Your task to perform on an android device: Clear all items from cart on newegg. Search for "apple airpods" on newegg, select the first entry, and add it to the cart. Image 0: 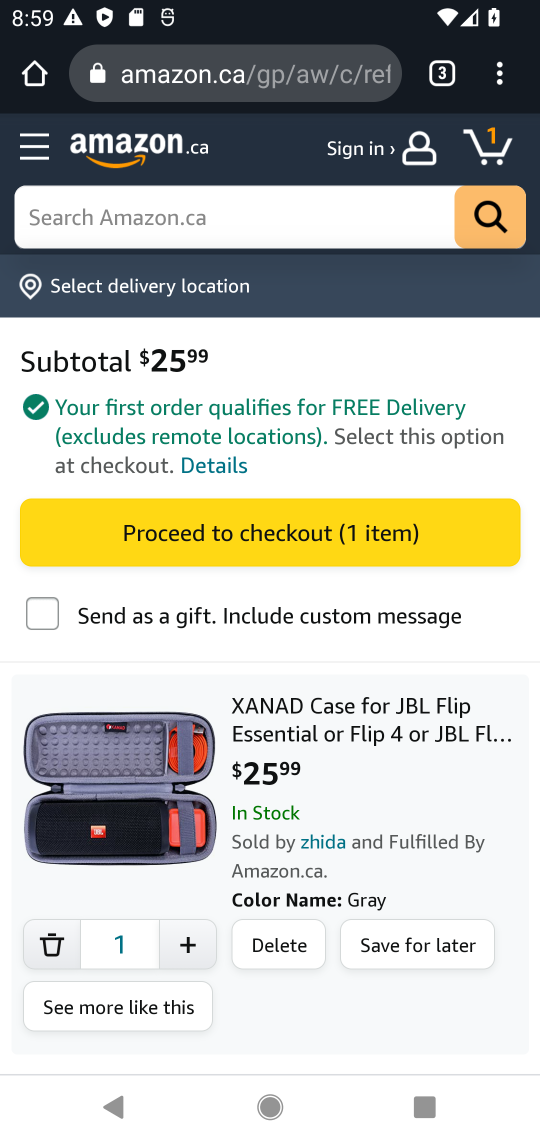
Step 0: press home button
Your task to perform on an android device: Clear all items from cart on newegg. Search for "apple airpods" on newegg, select the first entry, and add it to the cart. Image 1: 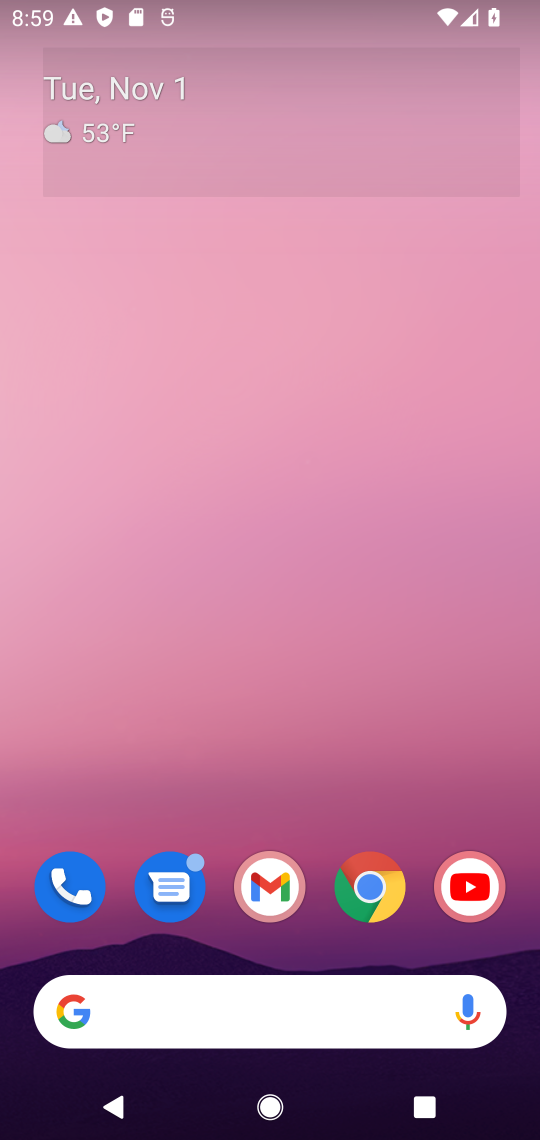
Step 1: drag from (319, 908) to (360, 271)
Your task to perform on an android device: Clear all items from cart on newegg. Search for "apple airpods" on newegg, select the first entry, and add it to the cart. Image 2: 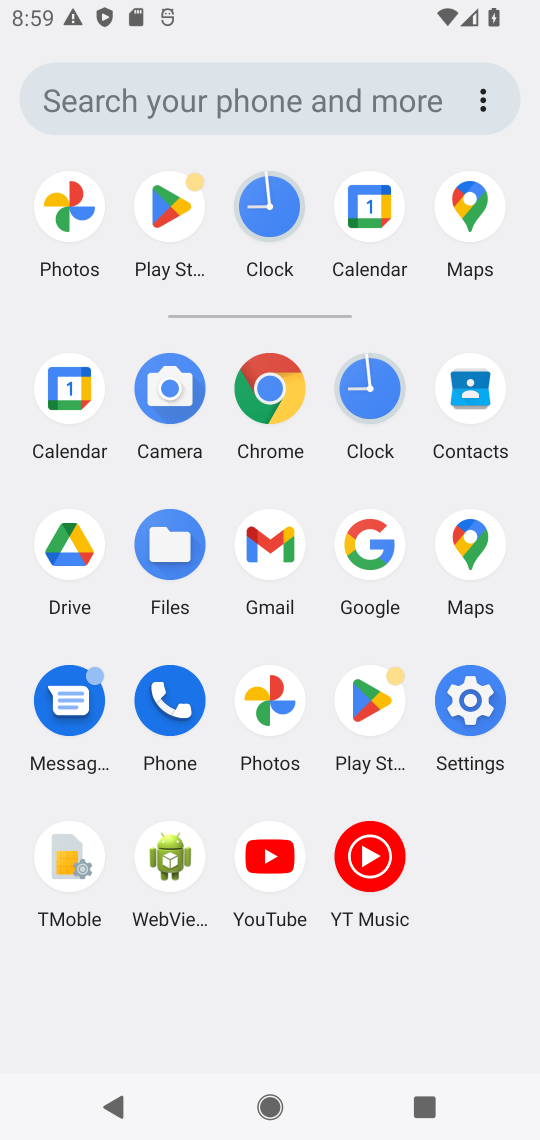
Step 2: click (372, 539)
Your task to perform on an android device: Clear all items from cart on newegg. Search for "apple airpods" on newegg, select the first entry, and add it to the cart. Image 3: 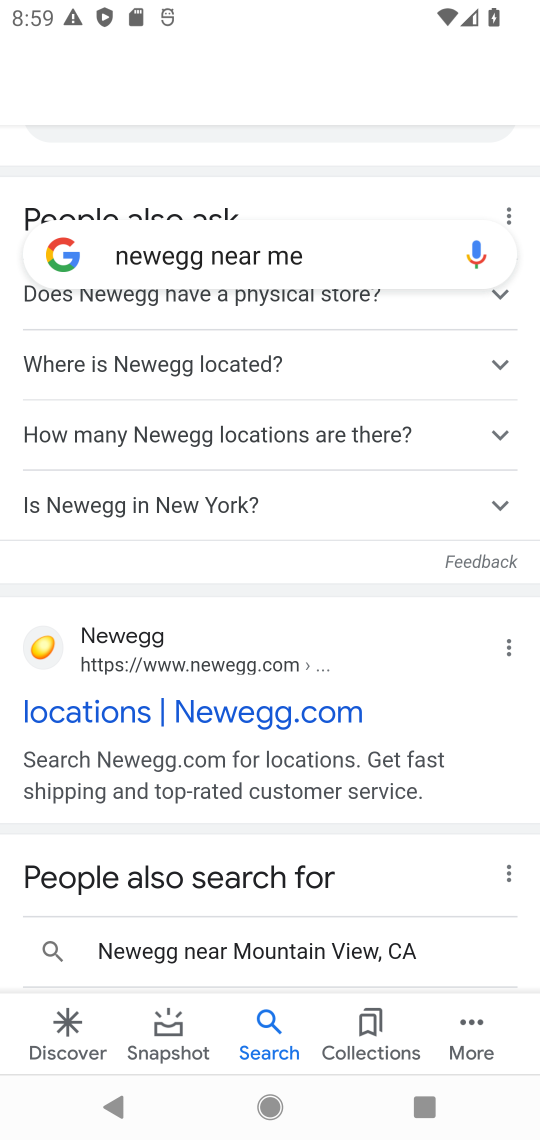
Step 3: click (288, 261)
Your task to perform on an android device: Clear all items from cart on newegg. Search for "apple airpods" on newegg, select the first entry, and add it to the cart. Image 4: 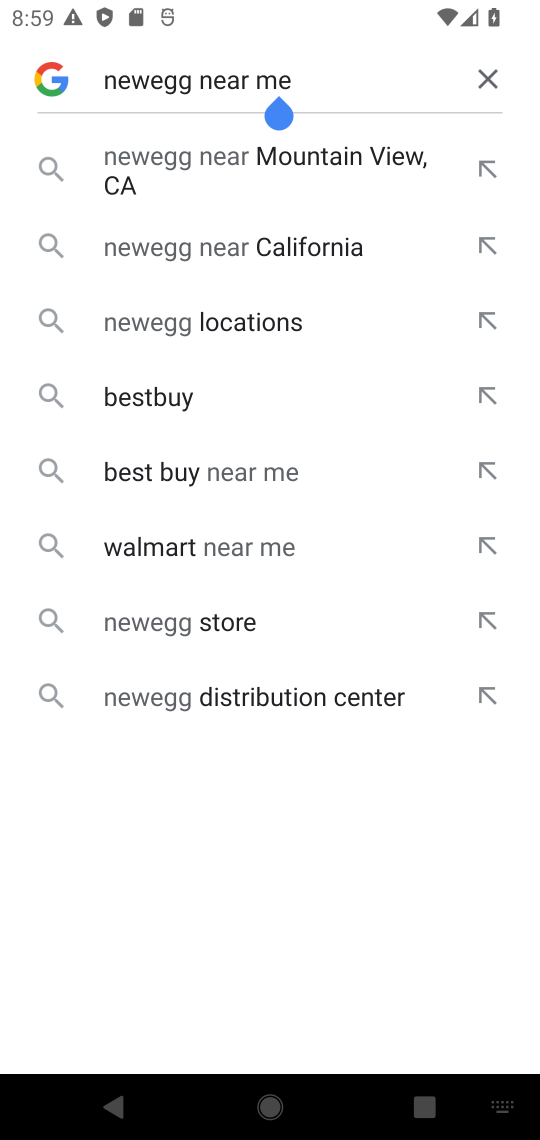
Step 4: click (486, 84)
Your task to perform on an android device: Clear all items from cart on newegg. Search for "apple airpods" on newegg, select the first entry, and add it to the cart. Image 5: 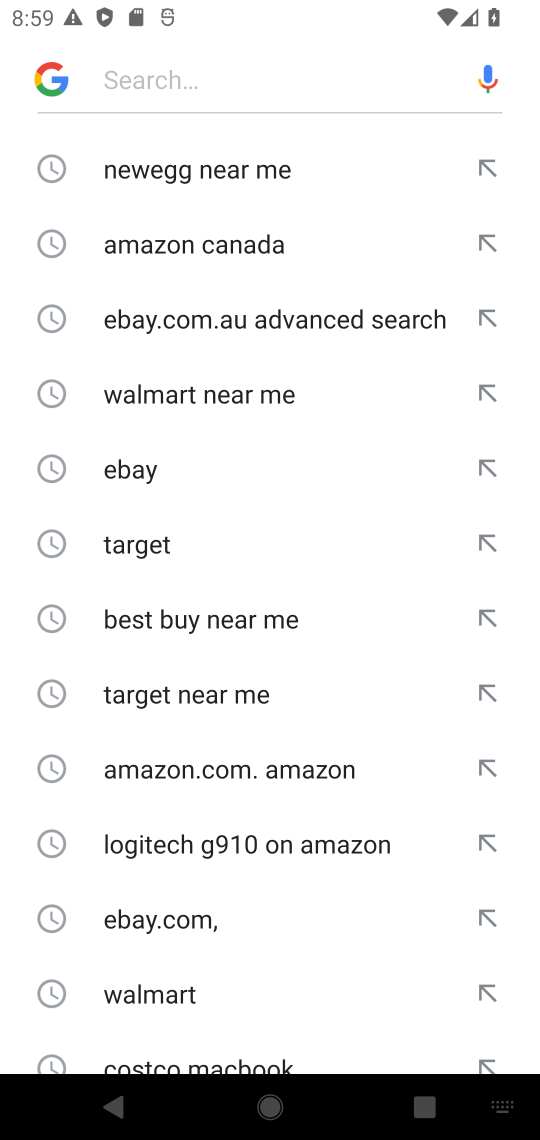
Step 5: click (309, 65)
Your task to perform on an android device: Clear all items from cart on newegg. Search for "apple airpods" on newegg, select the first entry, and add it to the cart. Image 6: 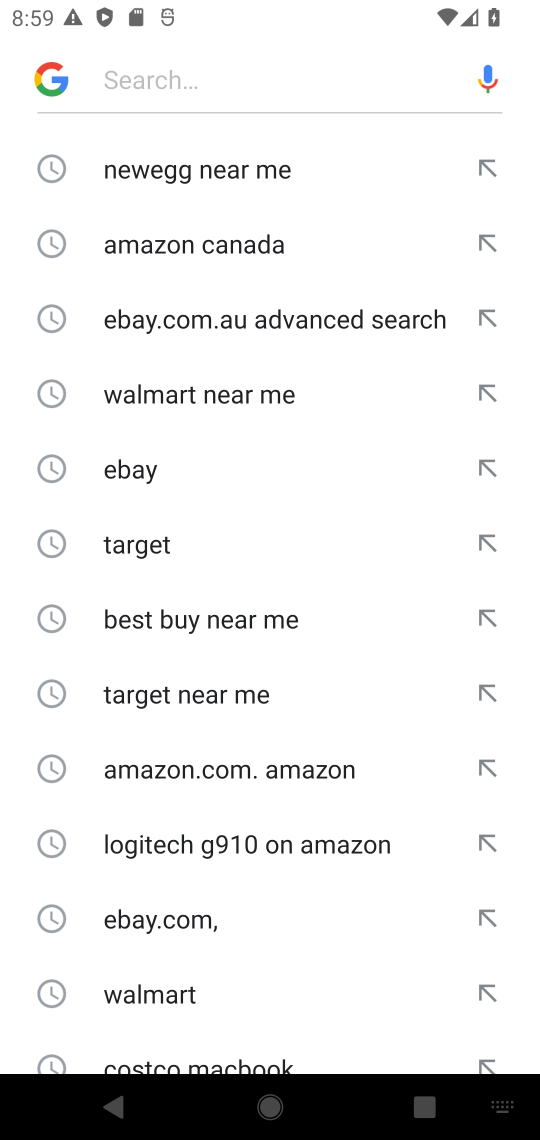
Step 6: type "newegg "
Your task to perform on an android device: Clear all items from cart on newegg. Search for "apple airpods" on newegg, select the first entry, and add it to the cart. Image 7: 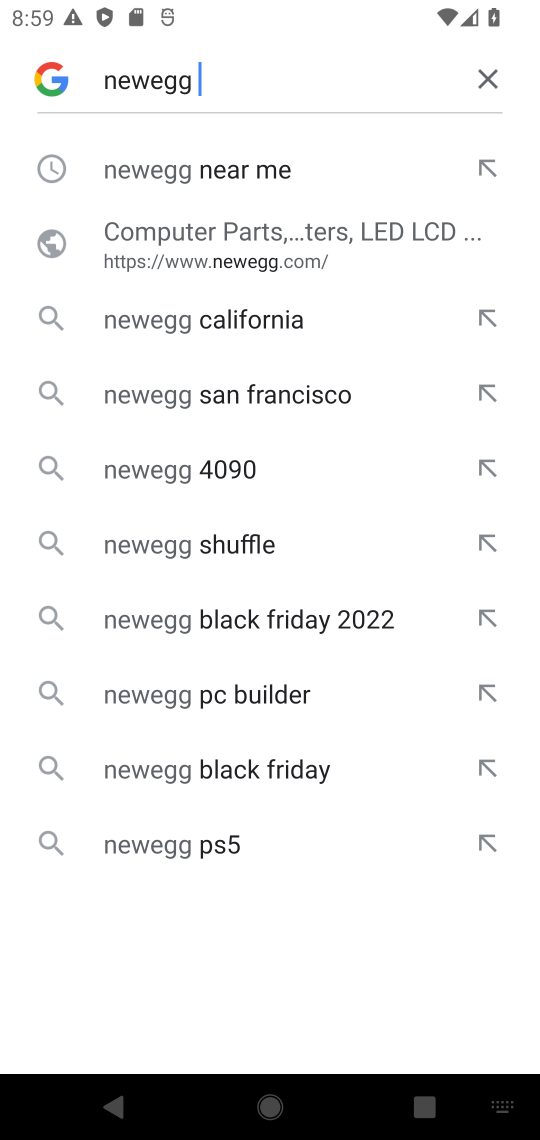
Step 7: click (177, 167)
Your task to perform on an android device: Clear all items from cart on newegg. Search for "apple airpods" on newegg, select the first entry, and add it to the cart. Image 8: 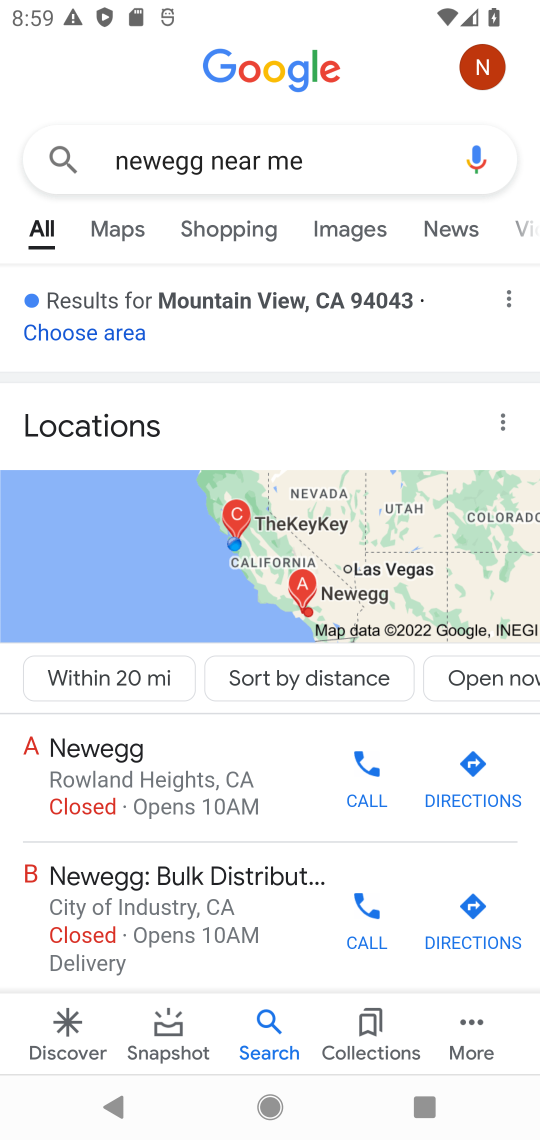
Step 8: drag from (146, 1011) to (226, 410)
Your task to perform on an android device: Clear all items from cart on newegg. Search for "apple airpods" on newegg, select the first entry, and add it to the cart. Image 9: 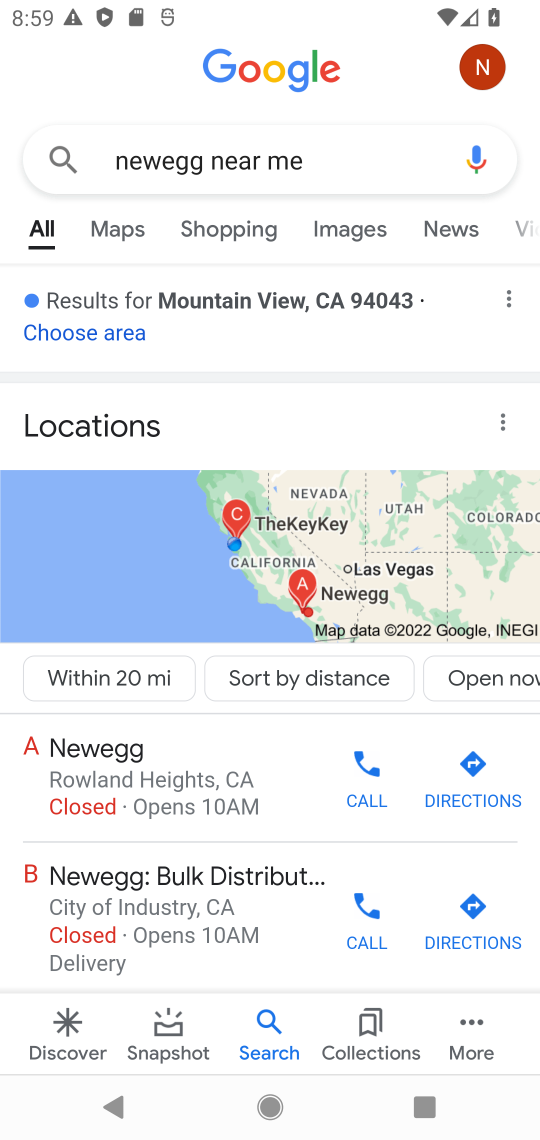
Step 9: drag from (208, 888) to (284, 361)
Your task to perform on an android device: Clear all items from cart on newegg. Search for "apple airpods" on newegg, select the first entry, and add it to the cart. Image 10: 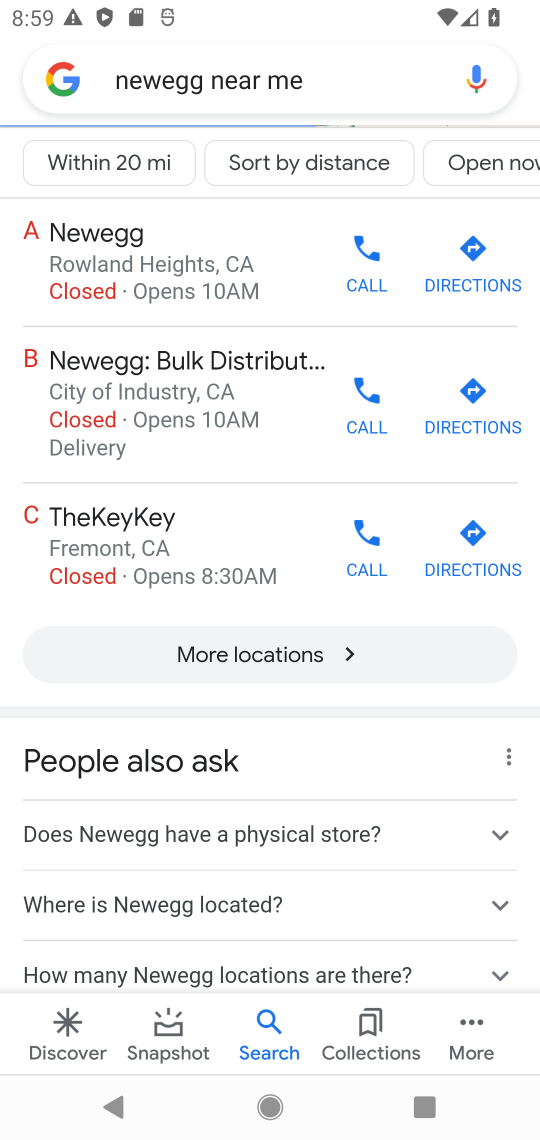
Step 10: drag from (239, 959) to (285, 312)
Your task to perform on an android device: Clear all items from cart on newegg. Search for "apple airpods" on newegg, select the first entry, and add it to the cart. Image 11: 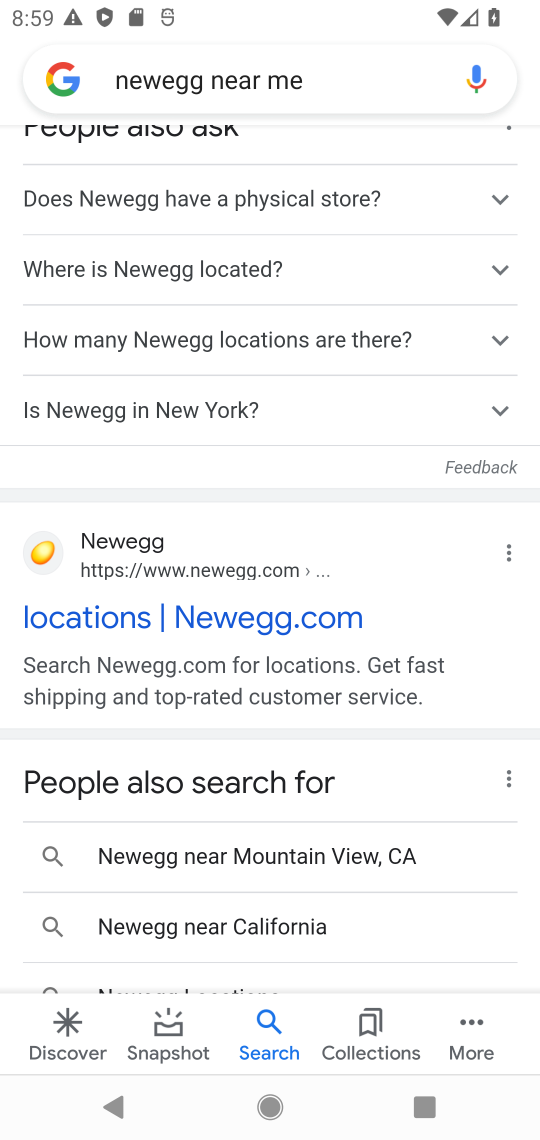
Step 11: drag from (179, 908) to (243, 201)
Your task to perform on an android device: Clear all items from cart on newegg. Search for "apple airpods" on newegg, select the first entry, and add it to the cart. Image 12: 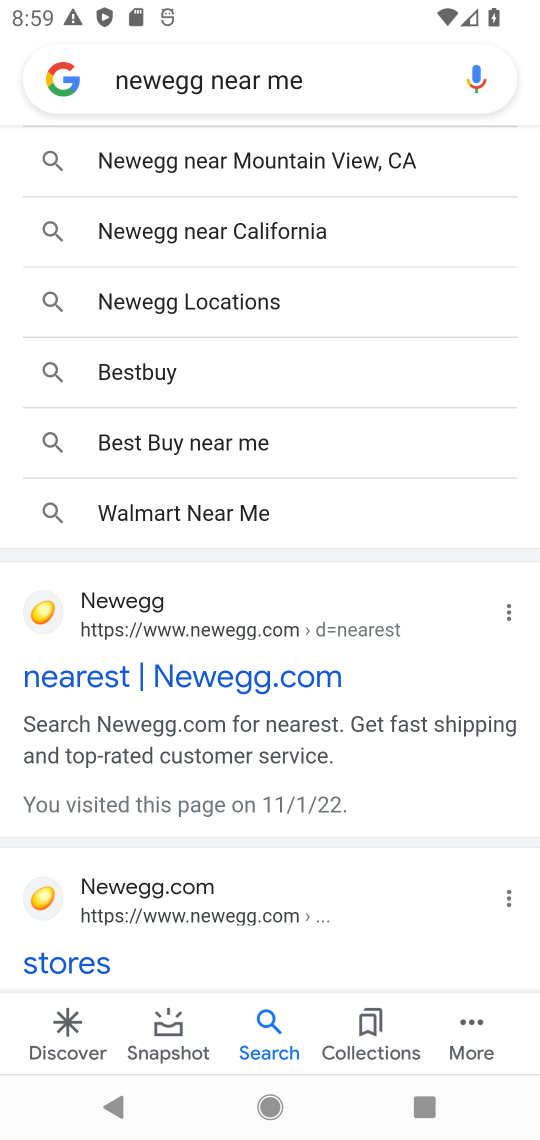
Step 12: click (29, 608)
Your task to perform on an android device: Clear all items from cart on newegg. Search for "apple airpods" on newegg, select the first entry, and add it to the cart. Image 13: 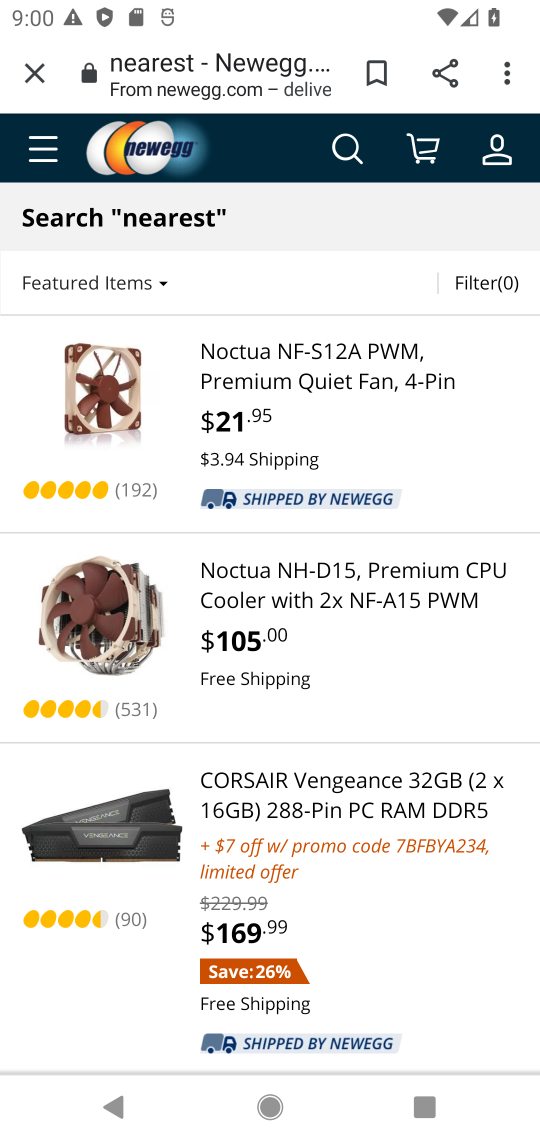
Step 13: click (350, 147)
Your task to perform on an android device: Clear all items from cart on newegg. Search for "apple airpods" on newegg, select the first entry, and add it to the cart. Image 14: 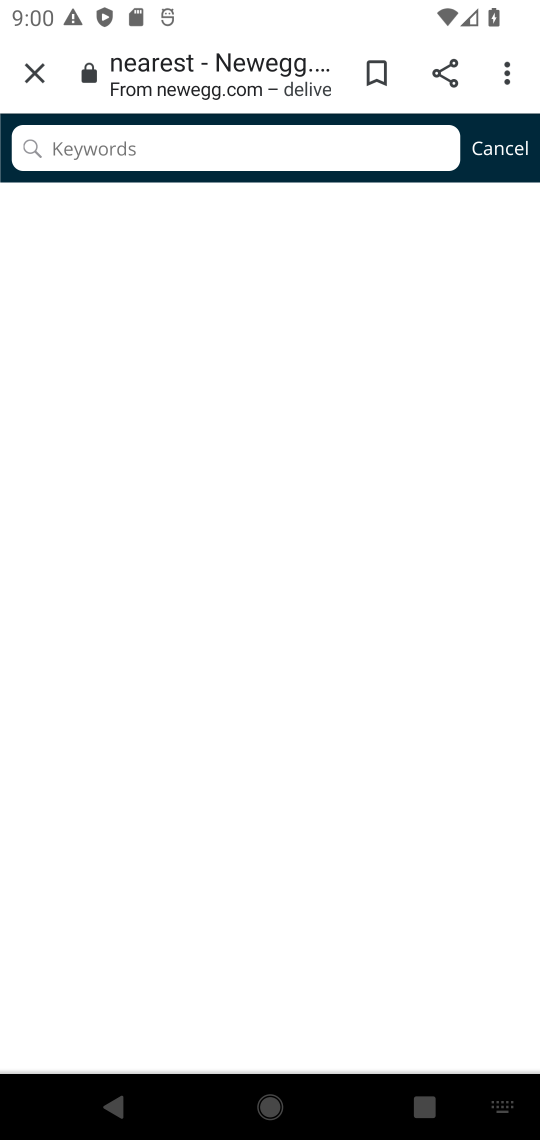
Step 14: type "airpods "
Your task to perform on an android device: Clear all items from cart on newegg. Search for "apple airpods" on newegg, select the first entry, and add it to the cart. Image 15: 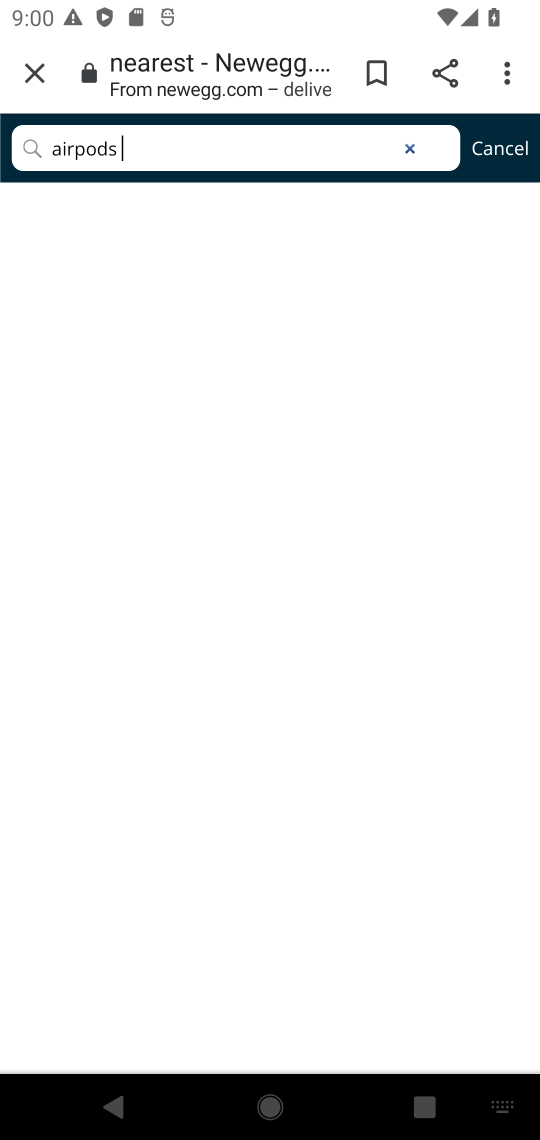
Step 15: task complete